Your task to perform on an android device: add a contact in the contacts app Image 0: 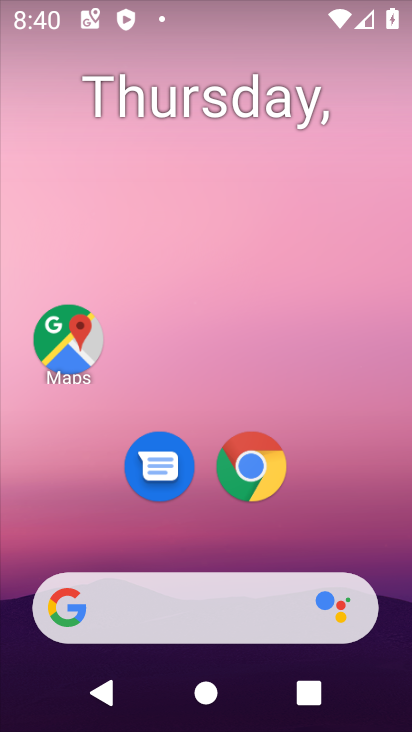
Step 0: drag from (371, 536) to (349, 115)
Your task to perform on an android device: add a contact in the contacts app Image 1: 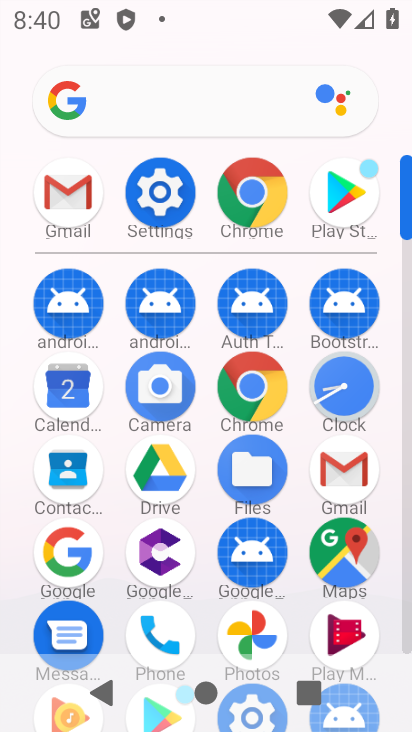
Step 1: click (55, 470)
Your task to perform on an android device: add a contact in the contacts app Image 2: 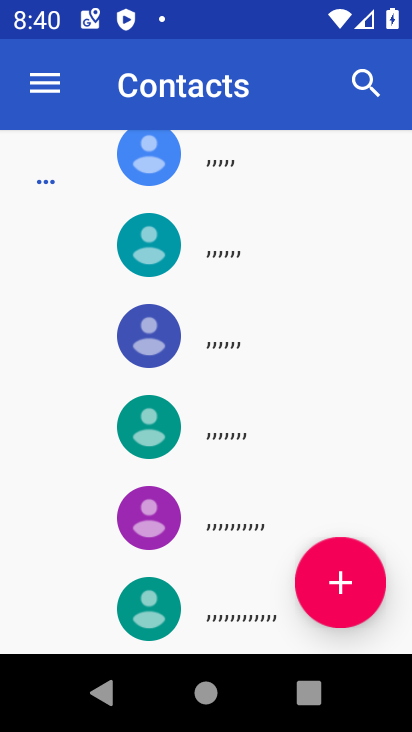
Step 2: click (323, 578)
Your task to perform on an android device: add a contact in the contacts app Image 3: 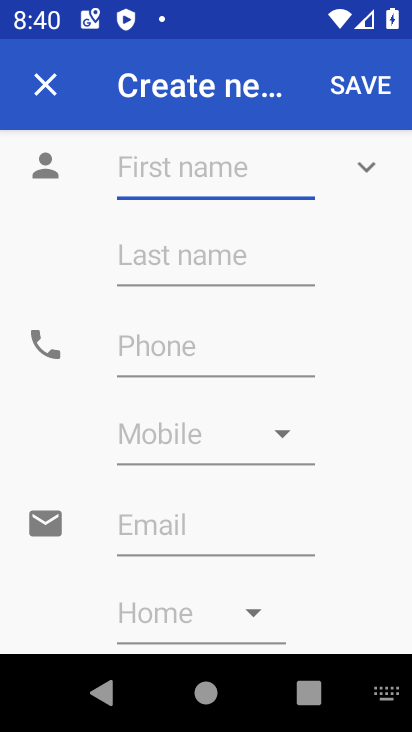
Step 3: type "yxjyxjf"
Your task to perform on an android device: add a contact in the contacts app Image 4: 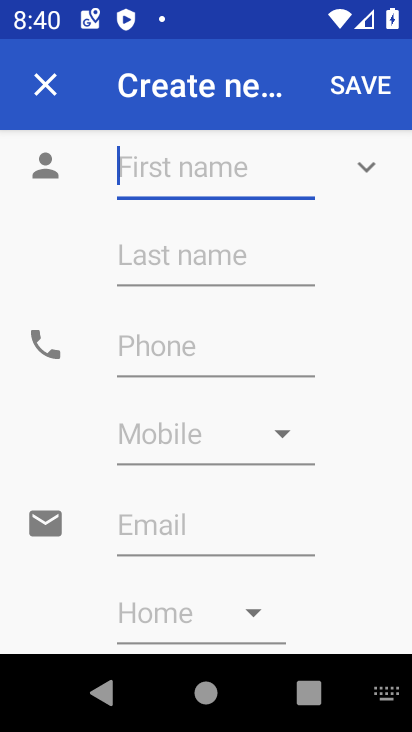
Step 4: click (258, 343)
Your task to perform on an android device: add a contact in the contacts app Image 5: 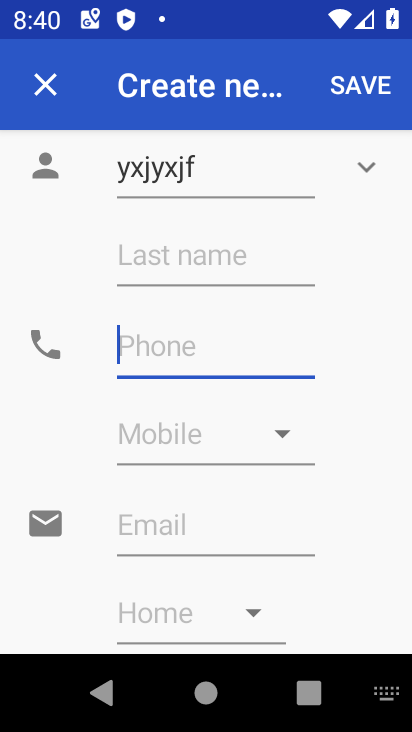
Step 5: type "546546466"
Your task to perform on an android device: add a contact in the contacts app Image 6: 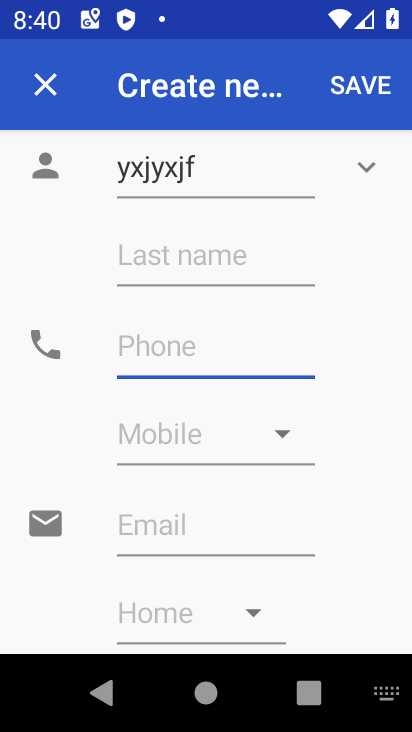
Step 6: click (162, 350)
Your task to perform on an android device: add a contact in the contacts app Image 7: 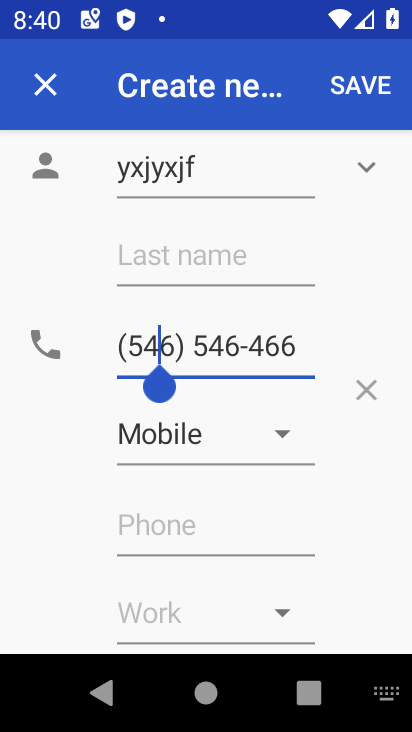
Step 7: click (364, 73)
Your task to perform on an android device: add a contact in the contacts app Image 8: 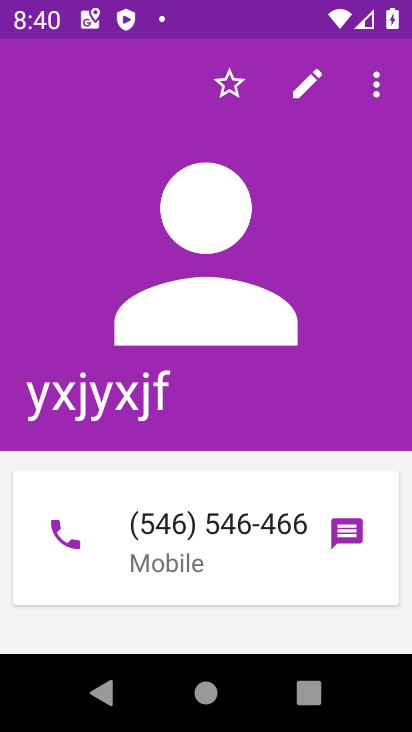
Step 8: task complete